Your task to perform on an android device: check battery use Image 0: 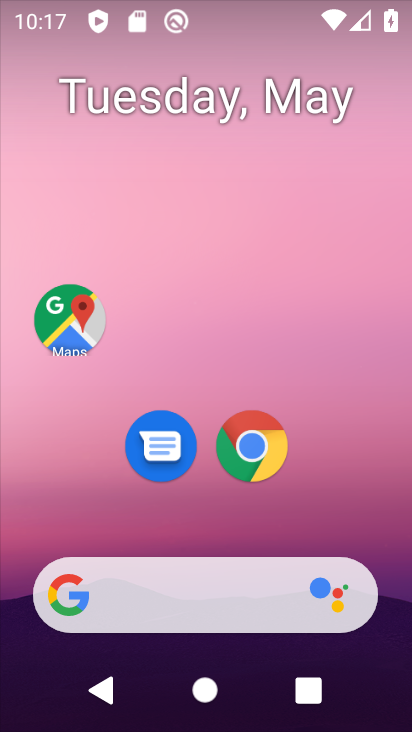
Step 0: drag from (174, 525) to (245, 163)
Your task to perform on an android device: check battery use Image 1: 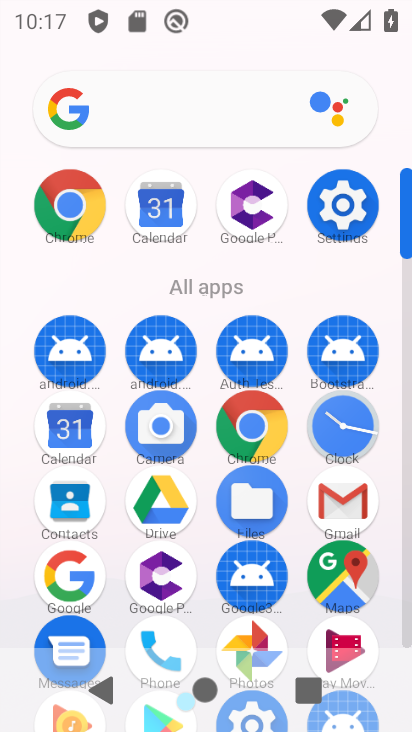
Step 1: click (349, 214)
Your task to perform on an android device: check battery use Image 2: 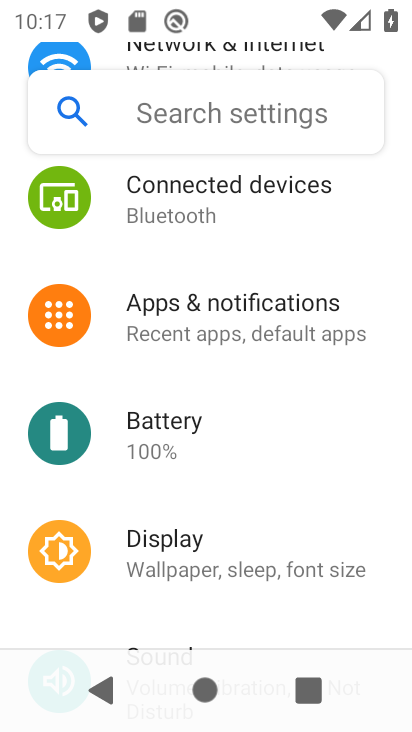
Step 2: click (204, 422)
Your task to perform on an android device: check battery use Image 3: 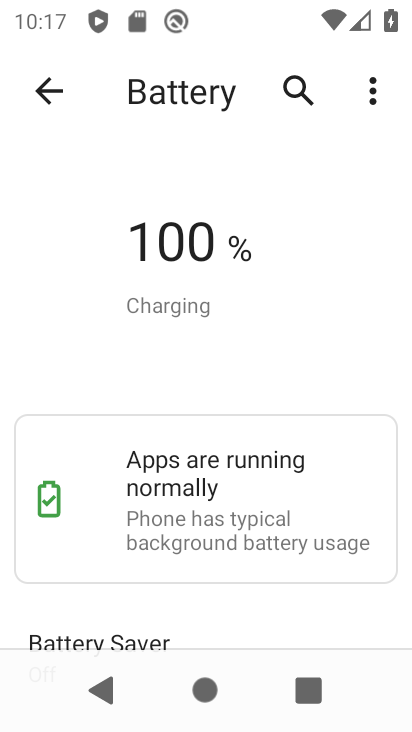
Step 3: click (367, 107)
Your task to perform on an android device: check battery use Image 4: 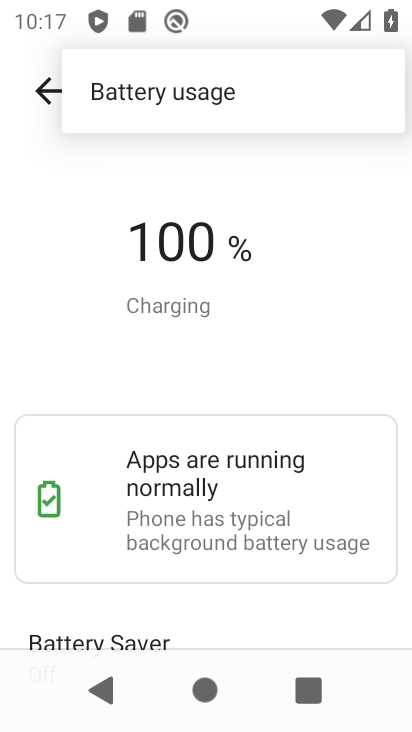
Step 4: click (276, 103)
Your task to perform on an android device: check battery use Image 5: 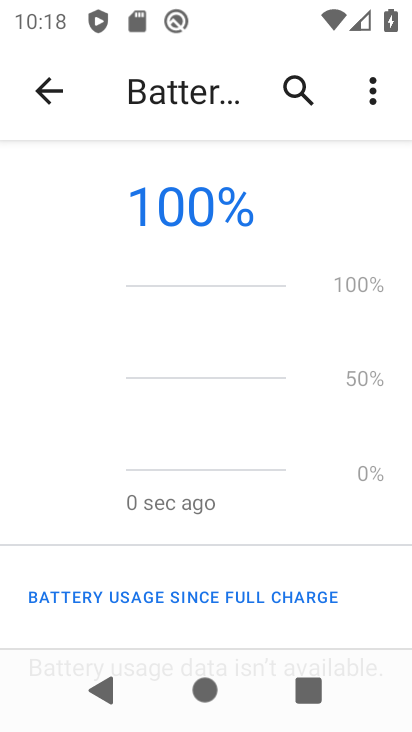
Step 5: task complete